Your task to perform on an android device: Clear the shopping cart on ebay. Search for razer kraken on ebay, select the first entry, add it to the cart, then select checkout. Image 0: 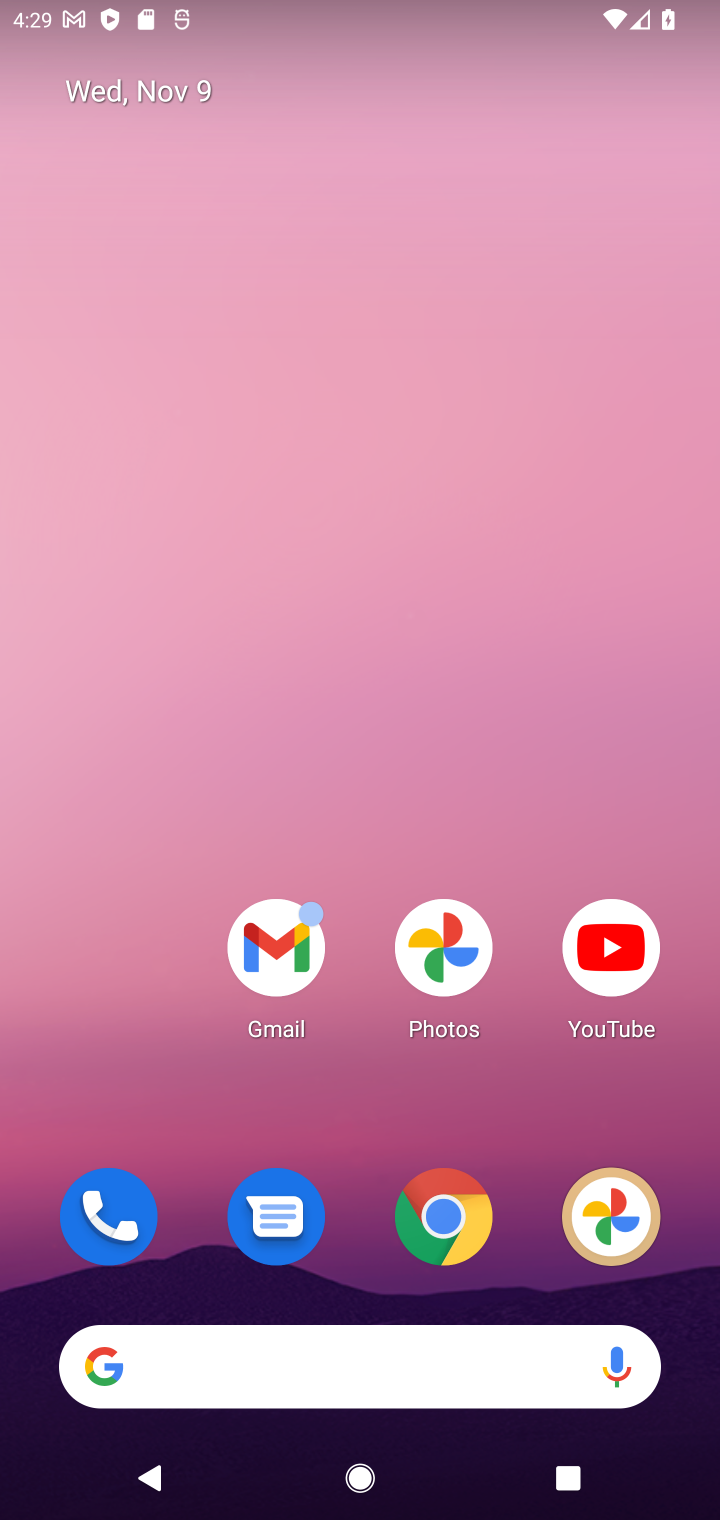
Step 0: drag from (330, 836) to (263, 99)
Your task to perform on an android device: Clear the shopping cart on ebay. Search for razer kraken on ebay, select the first entry, add it to the cart, then select checkout. Image 1: 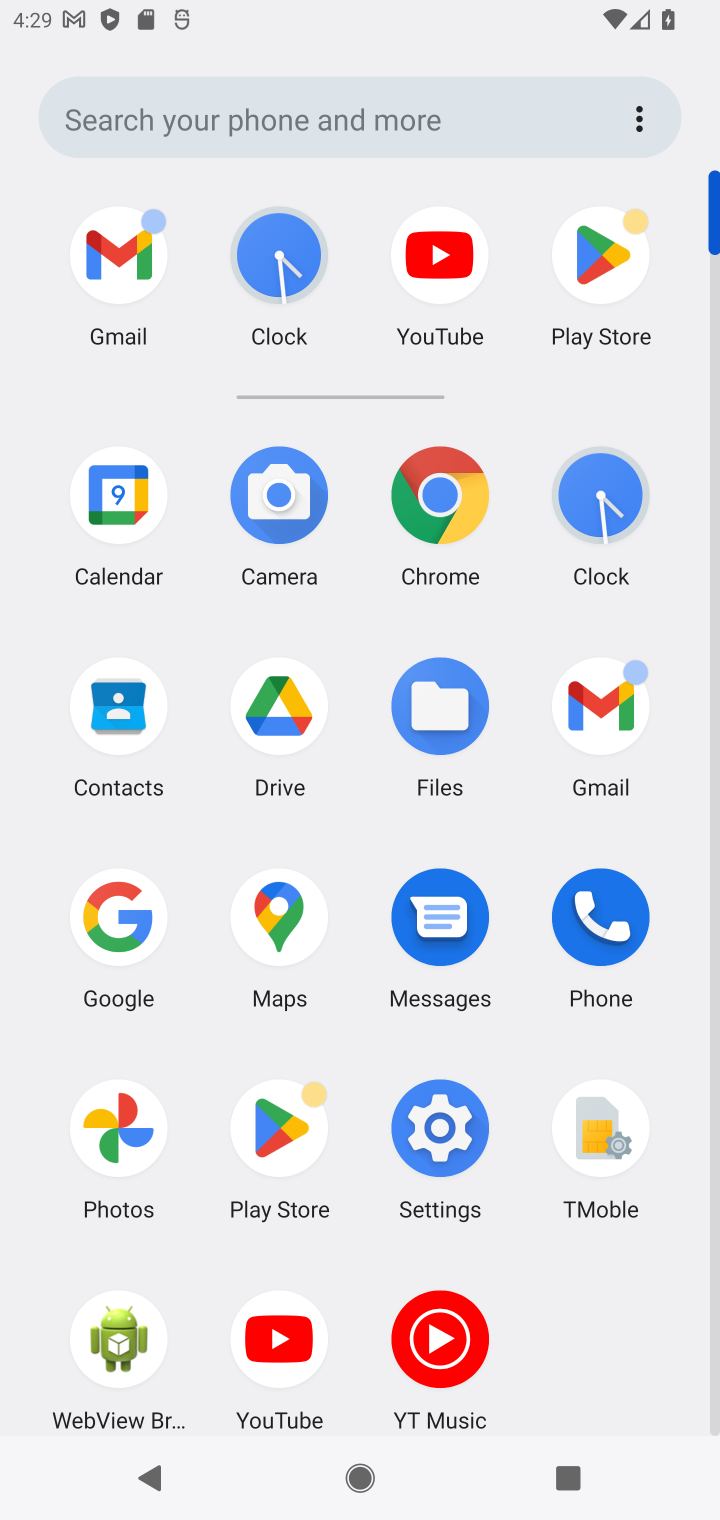
Step 1: click (443, 489)
Your task to perform on an android device: Clear the shopping cart on ebay. Search for razer kraken on ebay, select the first entry, add it to the cart, then select checkout. Image 2: 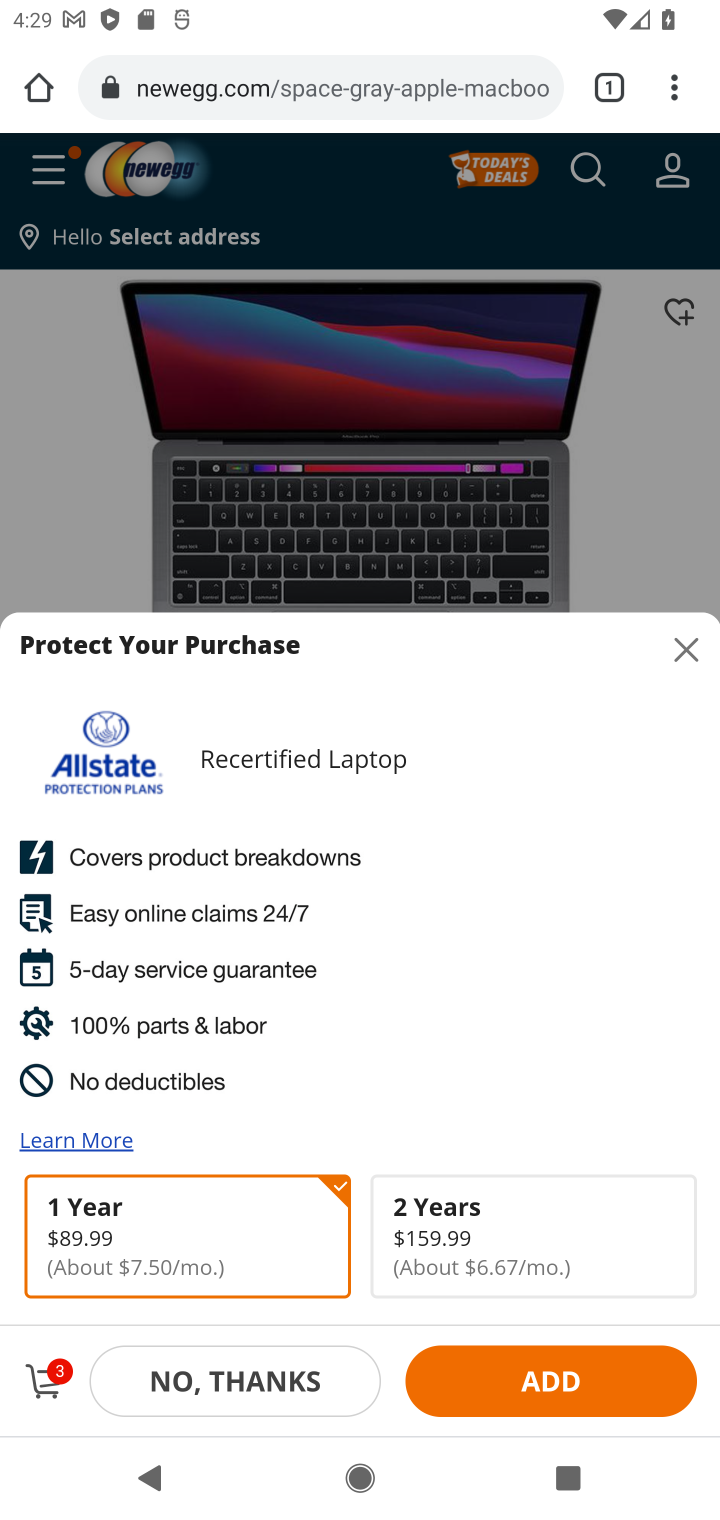
Step 2: click (379, 94)
Your task to perform on an android device: Clear the shopping cart on ebay. Search for razer kraken on ebay, select the first entry, add it to the cart, then select checkout. Image 3: 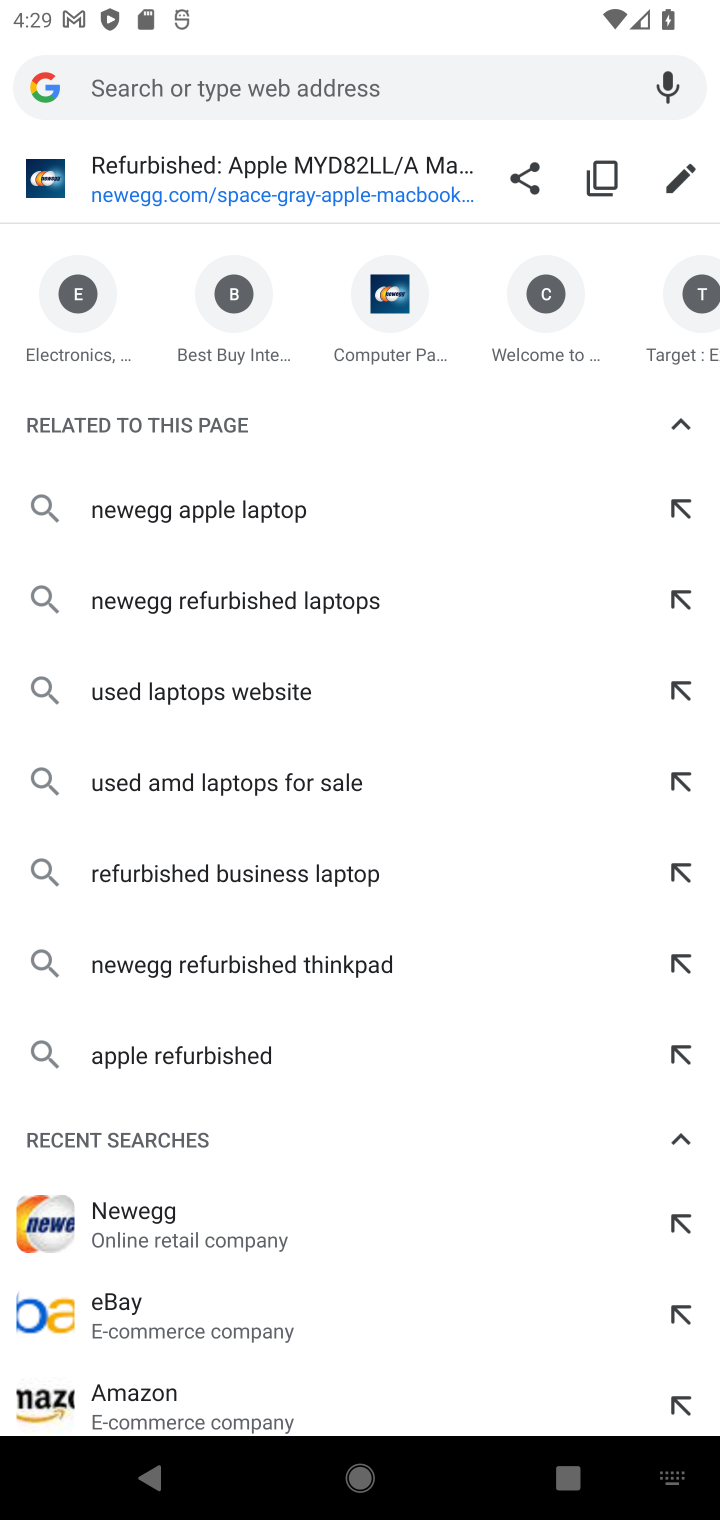
Step 3: type "ebay.com"
Your task to perform on an android device: Clear the shopping cart on ebay. Search for razer kraken on ebay, select the first entry, add it to the cart, then select checkout. Image 4: 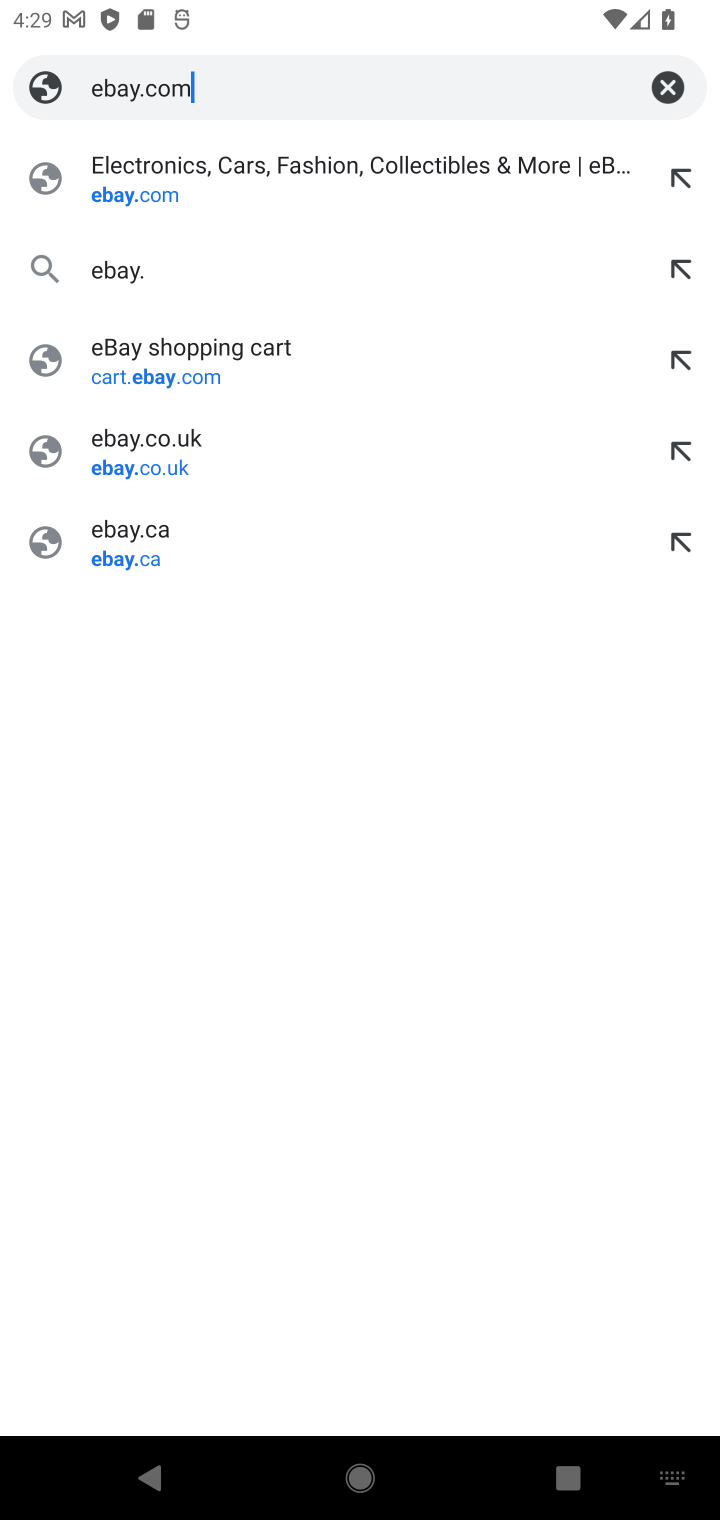
Step 4: press enter
Your task to perform on an android device: Clear the shopping cart on ebay. Search for razer kraken on ebay, select the first entry, add it to the cart, then select checkout. Image 5: 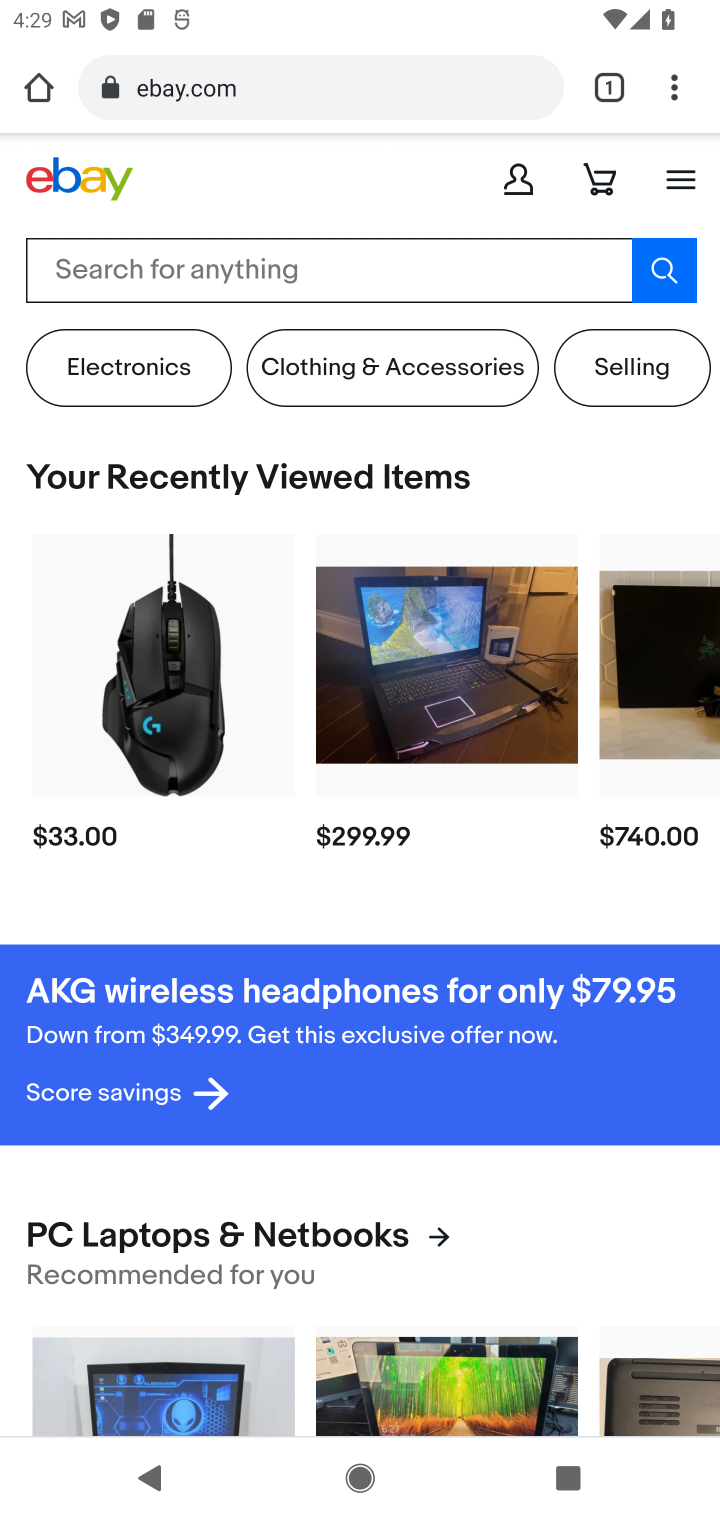
Step 5: click (599, 186)
Your task to perform on an android device: Clear the shopping cart on ebay. Search for razer kraken on ebay, select the first entry, add it to the cart, then select checkout. Image 6: 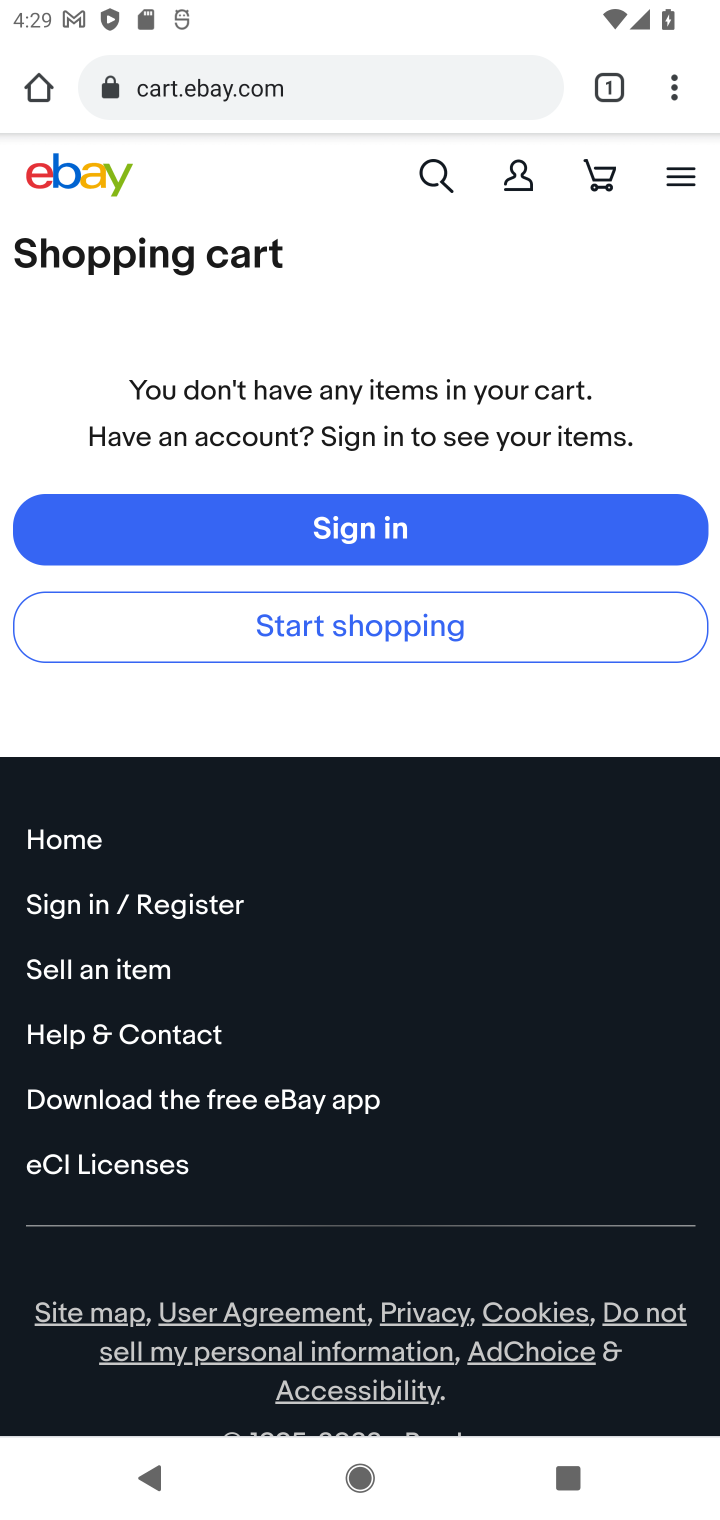
Step 6: click (452, 177)
Your task to perform on an android device: Clear the shopping cart on ebay. Search for razer kraken on ebay, select the first entry, add it to the cart, then select checkout. Image 7: 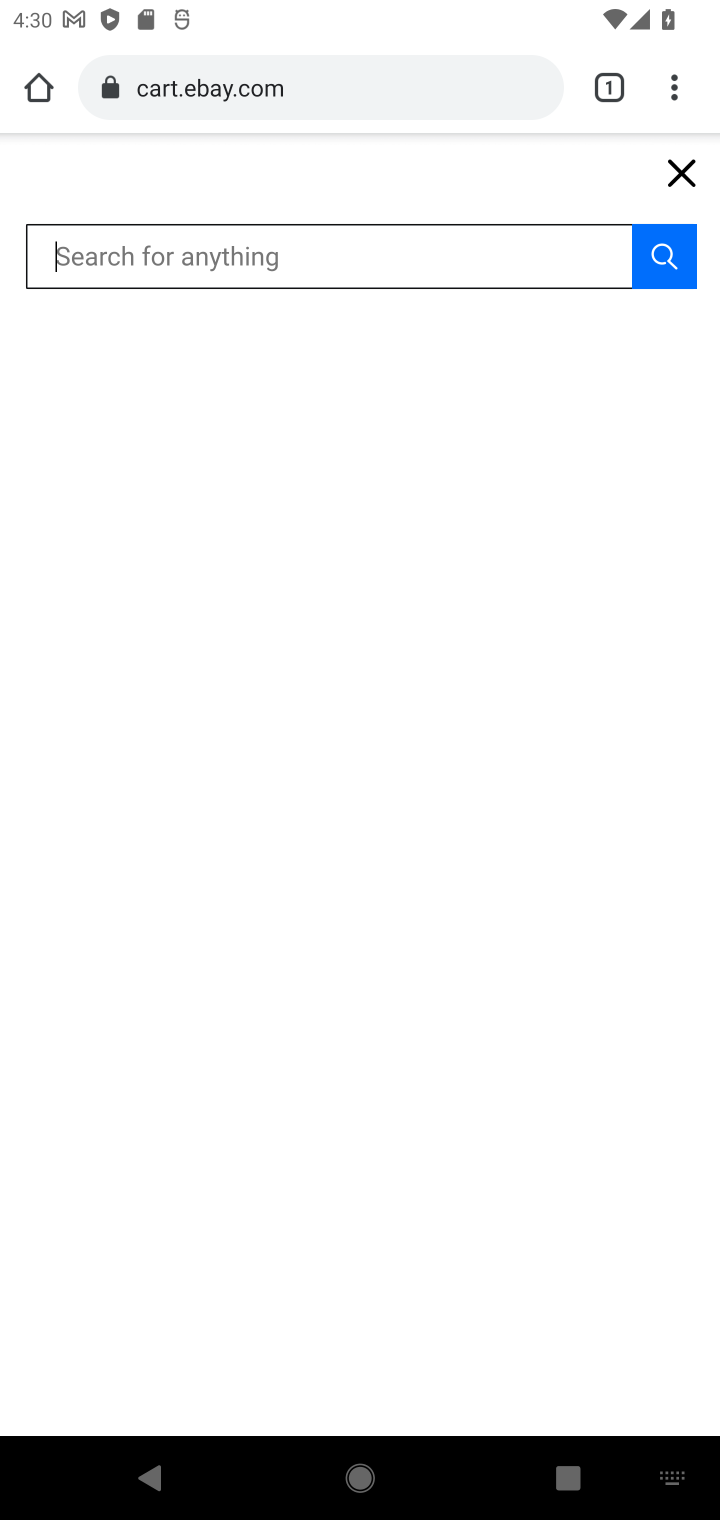
Step 7: type "razer kraken"
Your task to perform on an android device: Clear the shopping cart on ebay. Search for razer kraken on ebay, select the first entry, add it to the cart, then select checkout. Image 8: 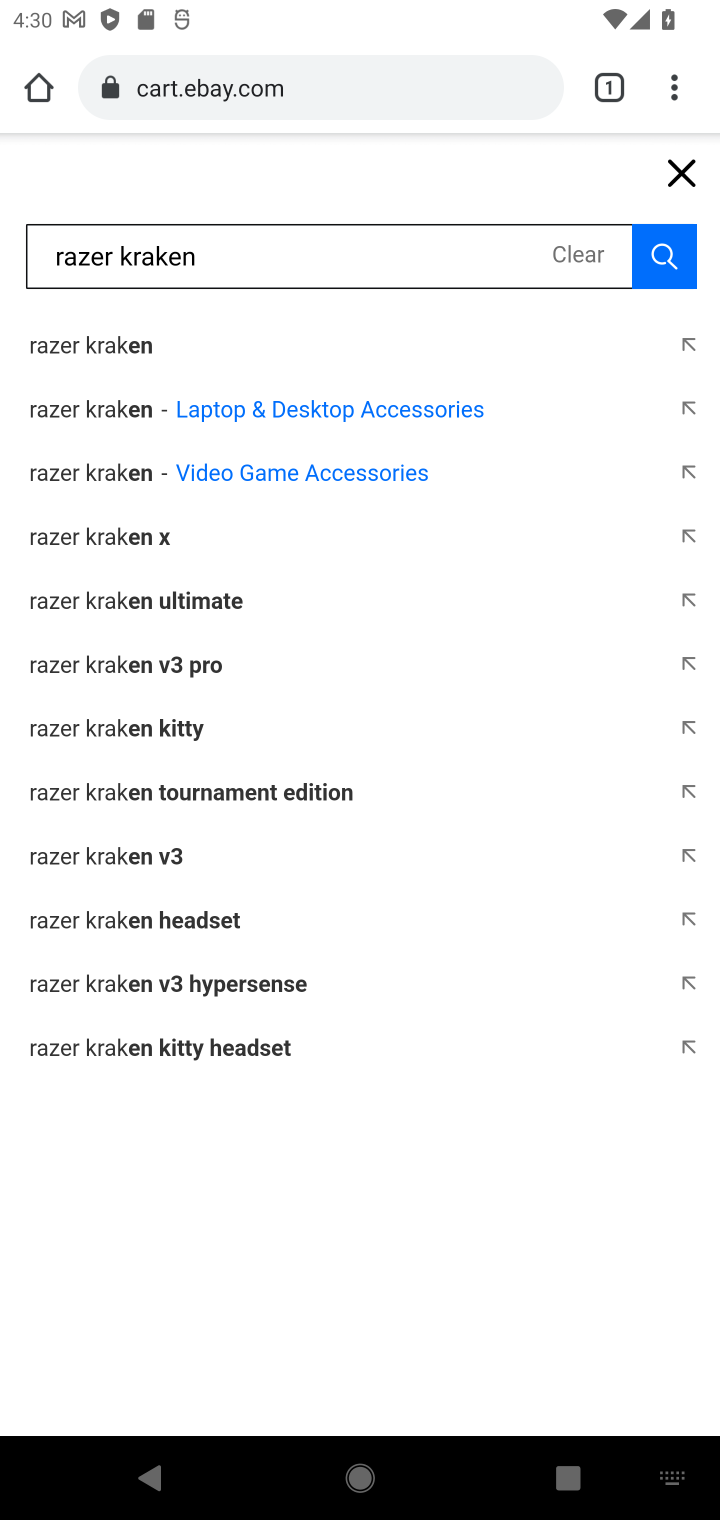
Step 8: press enter
Your task to perform on an android device: Clear the shopping cart on ebay. Search for razer kraken on ebay, select the first entry, add it to the cart, then select checkout. Image 9: 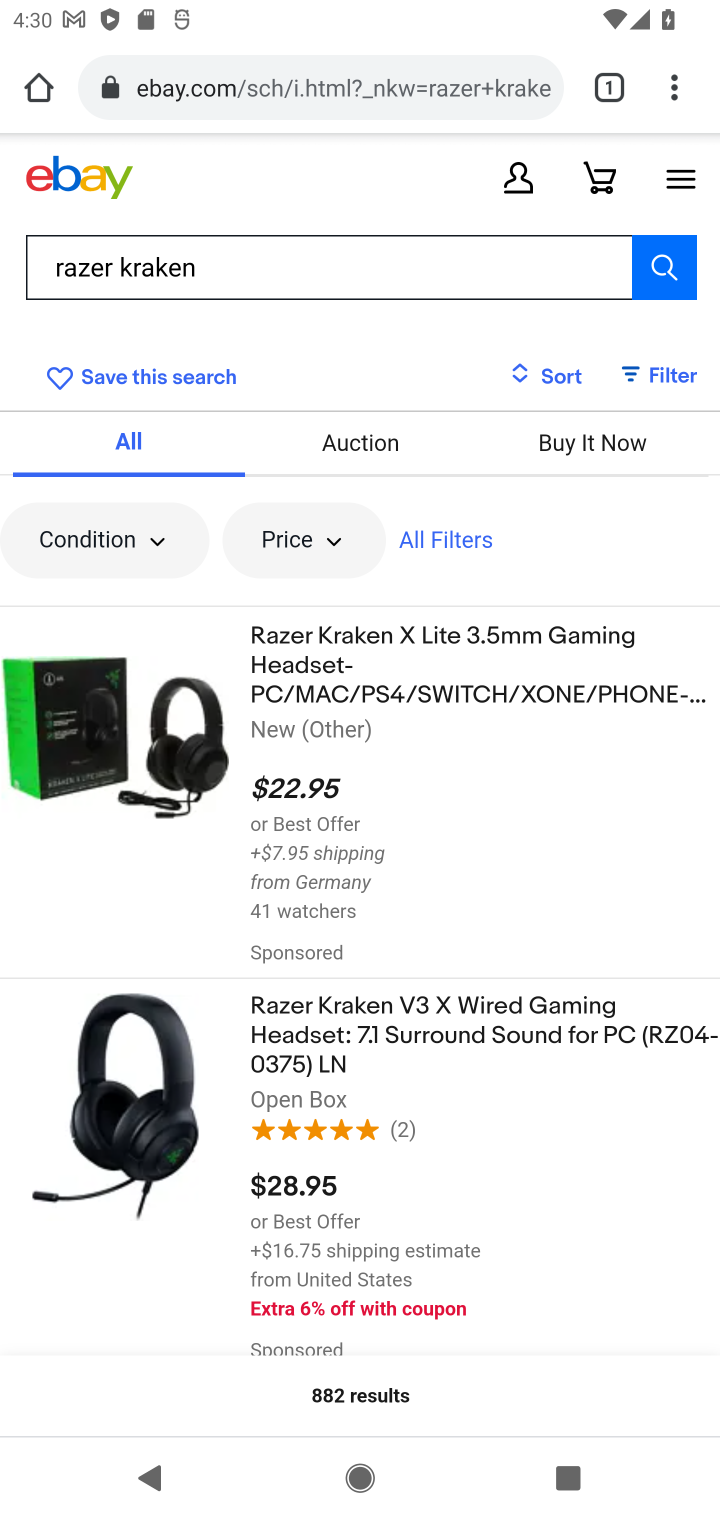
Step 9: click (328, 669)
Your task to perform on an android device: Clear the shopping cart on ebay. Search for razer kraken on ebay, select the first entry, add it to the cart, then select checkout. Image 10: 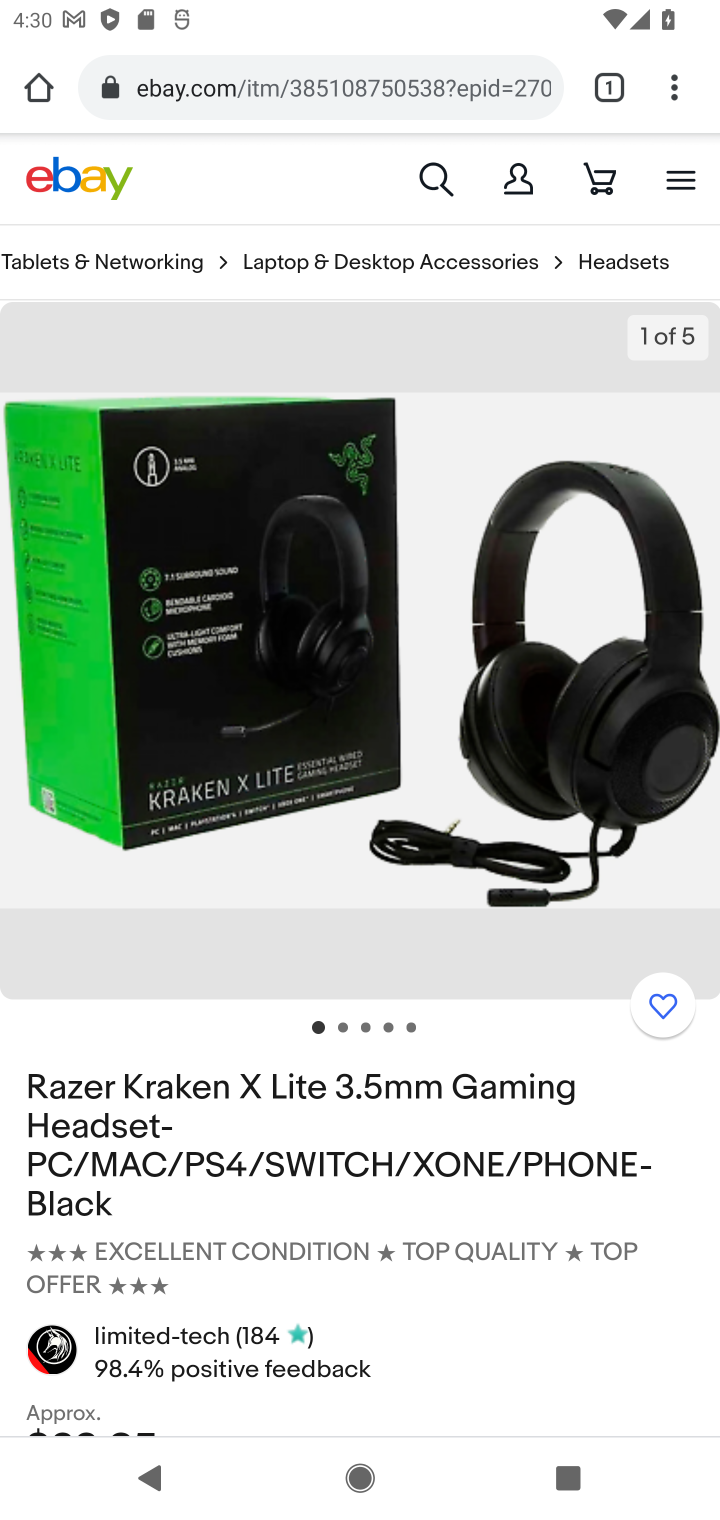
Step 10: drag from (306, 1093) to (282, 621)
Your task to perform on an android device: Clear the shopping cart on ebay. Search for razer kraken on ebay, select the first entry, add it to the cart, then select checkout. Image 11: 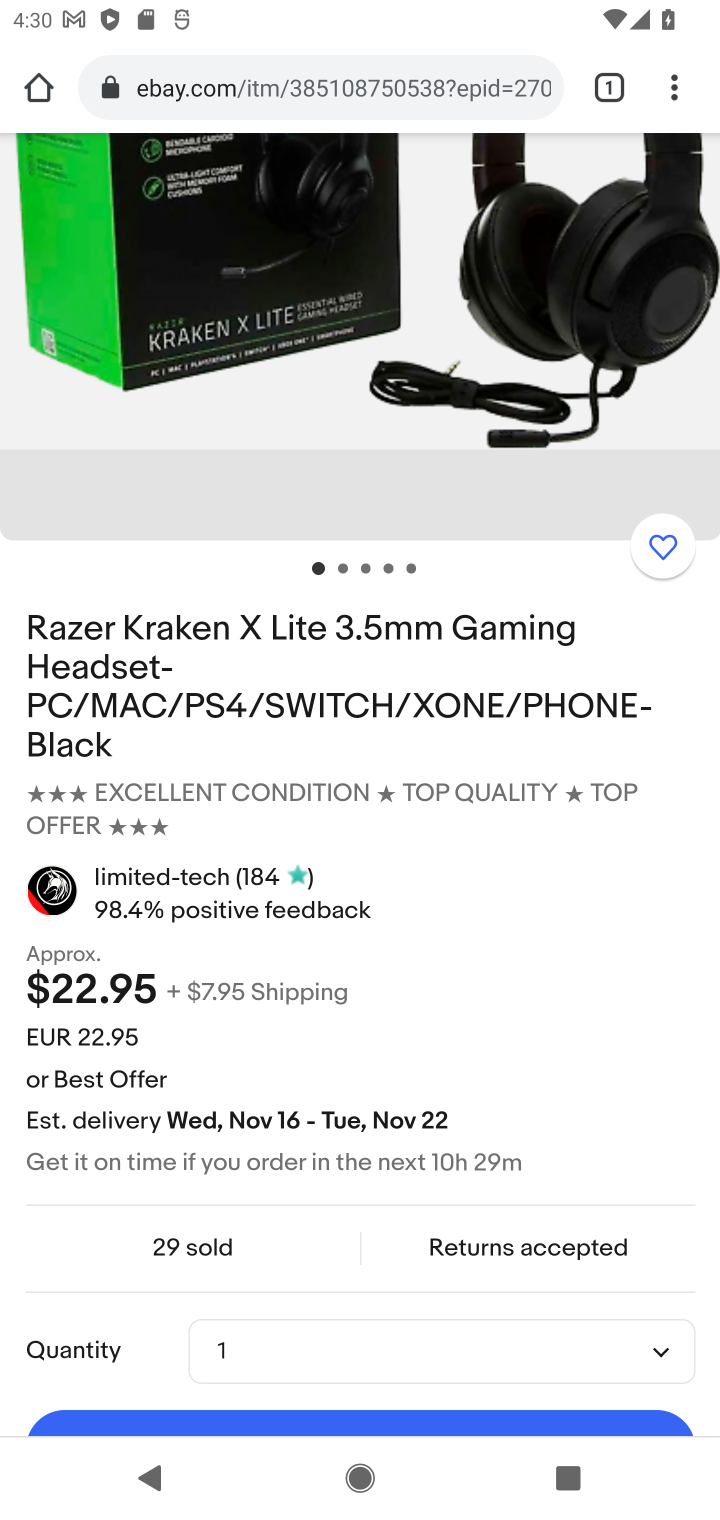
Step 11: drag from (411, 917) to (406, 624)
Your task to perform on an android device: Clear the shopping cart on ebay. Search for razer kraken on ebay, select the first entry, add it to the cart, then select checkout. Image 12: 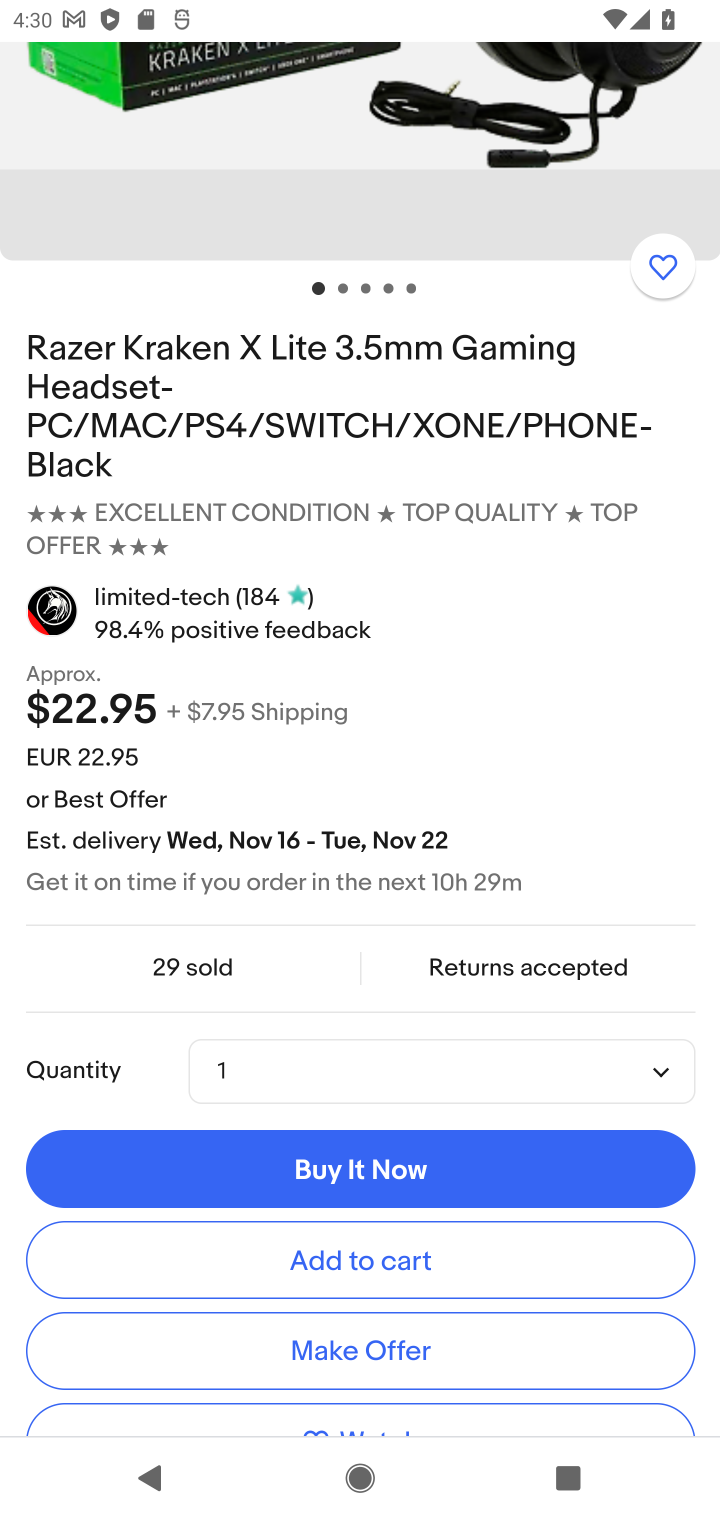
Step 12: click (470, 1259)
Your task to perform on an android device: Clear the shopping cart on ebay. Search for razer kraken on ebay, select the first entry, add it to the cart, then select checkout. Image 13: 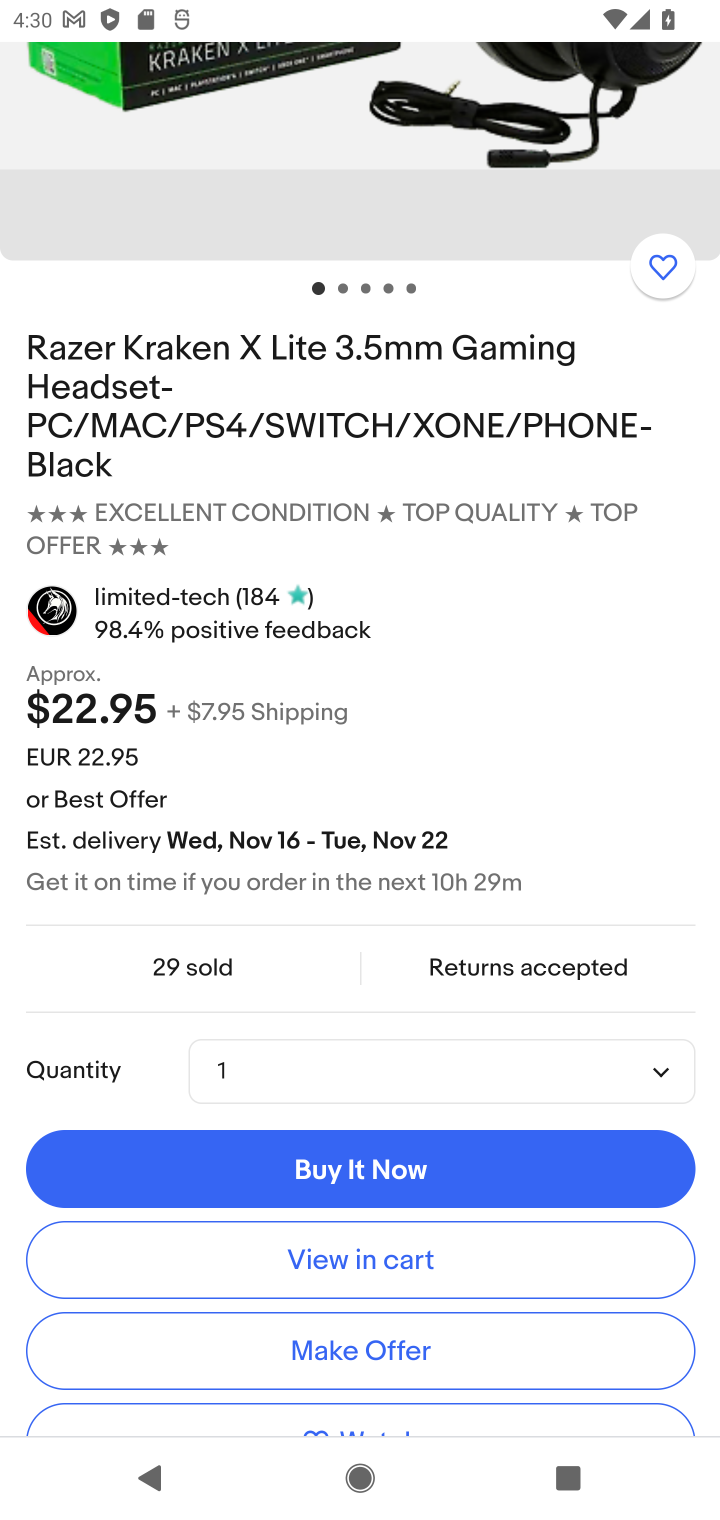
Step 13: click (470, 1259)
Your task to perform on an android device: Clear the shopping cart on ebay. Search for razer kraken on ebay, select the first entry, add it to the cart, then select checkout. Image 14: 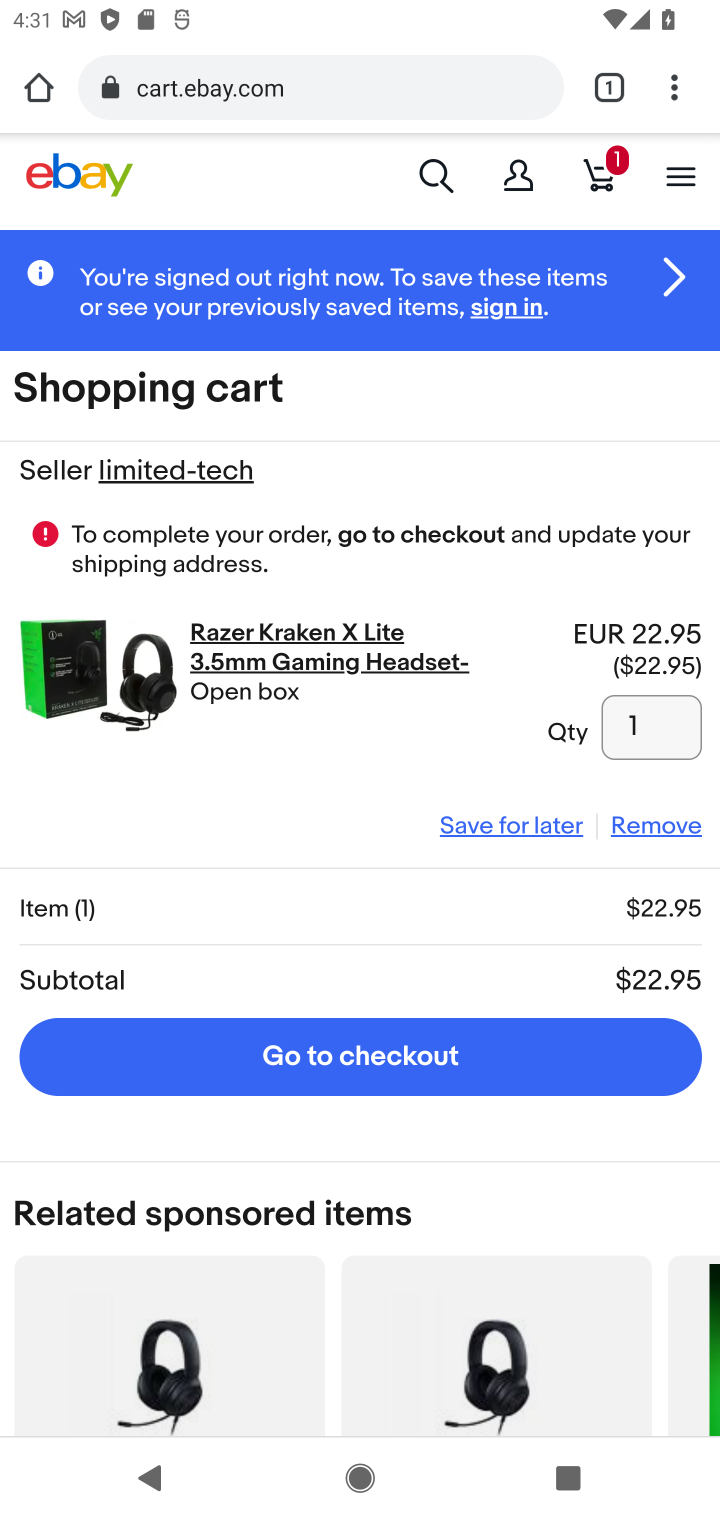
Step 14: click (480, 1056)
Your task to perform on an android device: Clear the shopping cart on ebay. Search for razer kraken on ebay, select the first entry, add it to the cart, then select checkout. Image 15: 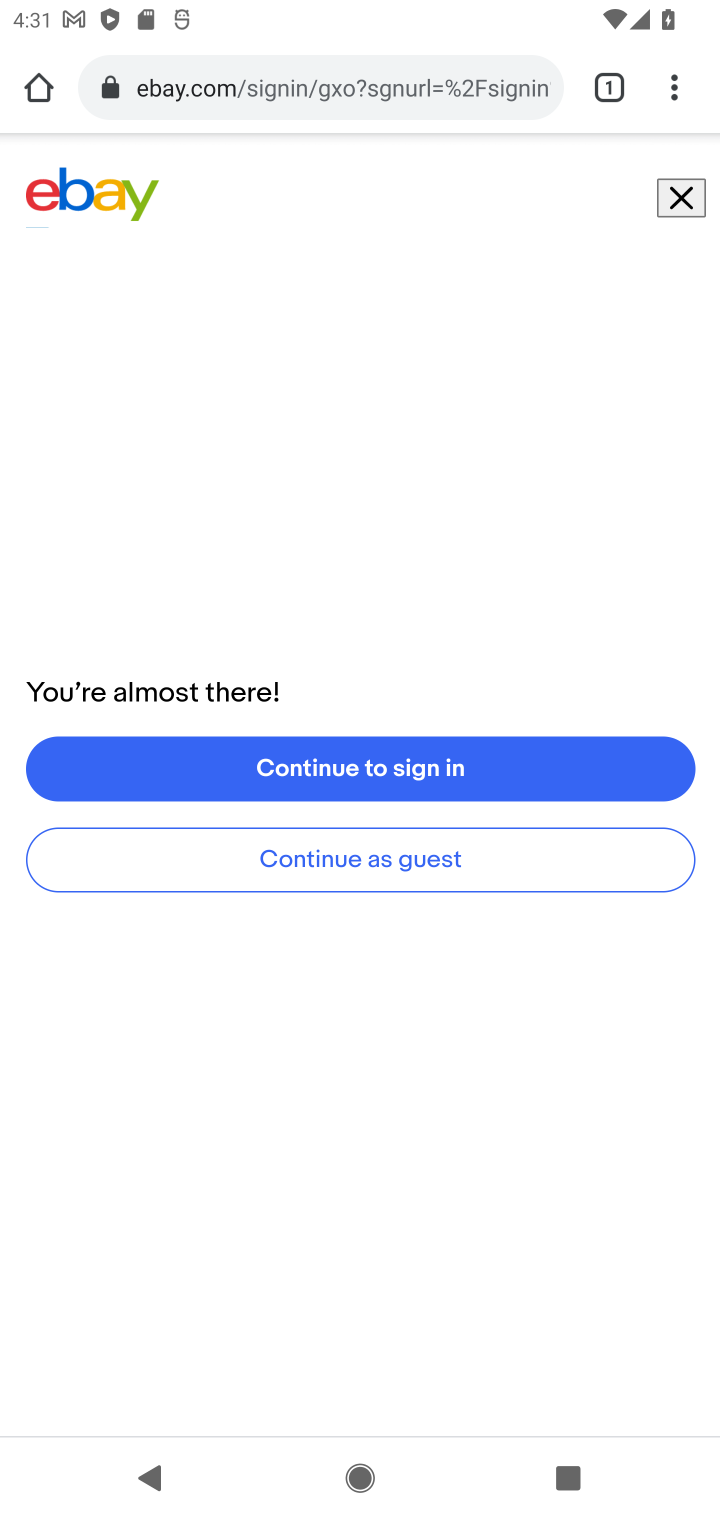
Step 15: task complete